Your task to perform on an android device: open chrome and create a bookmark for the current page Image 0: 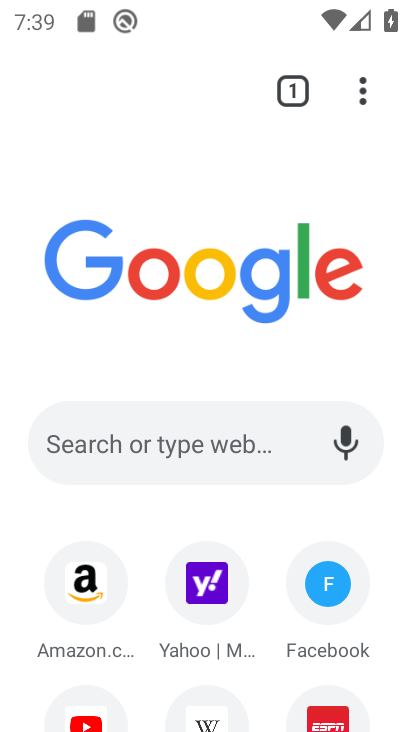
Step 0: press home button
Your task to perform on an android device: open chrome and create a bookmark for the current page Image 1: 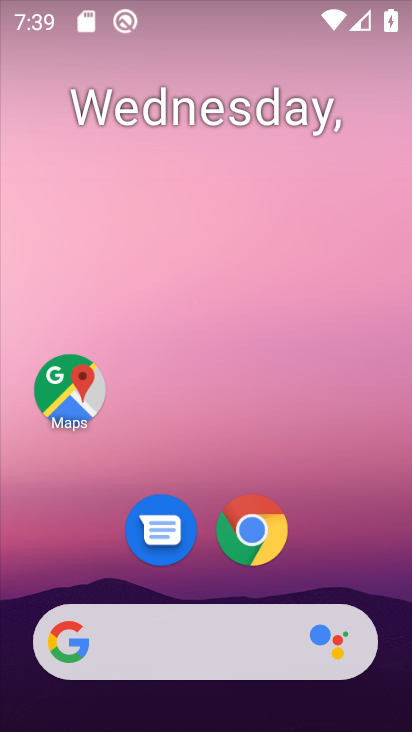
Step 1: drag from (382, 661) to (325, 74)
Your task to perform on an android device: open chrome and create a bookmark for the current page Image 2: 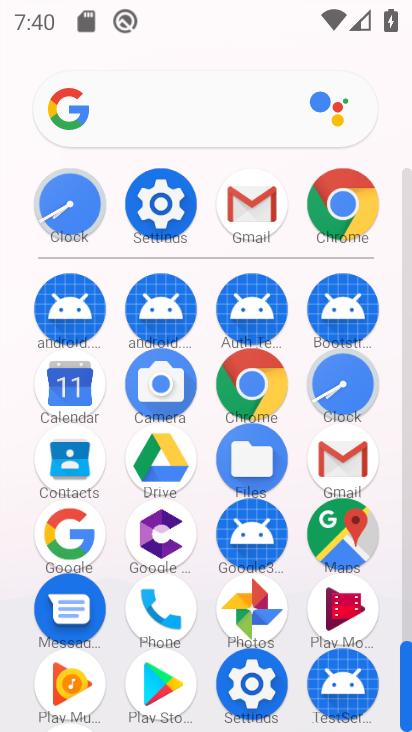
Step 2: click (253, 387)
Your task to perform on an android device: open chrome and create a bookmark for the current page Image 3: 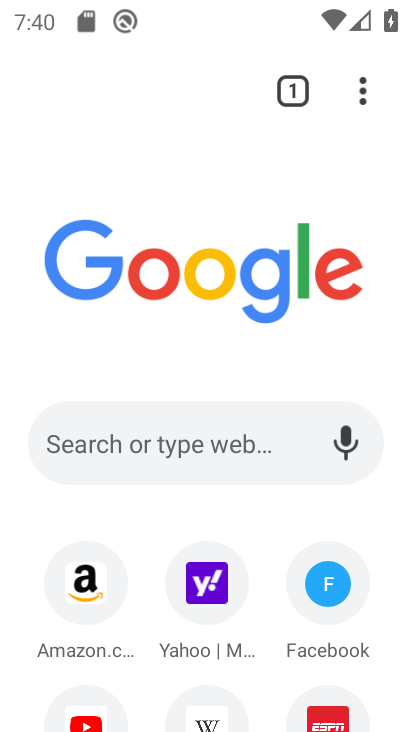
Step 3: click (358, 81)
Your task to perform on an android device: open chrome and create a bookmark for the current page Image 4: 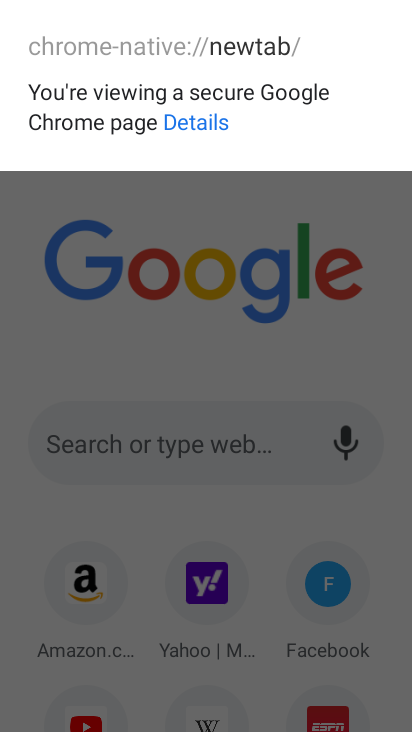
Step 4: click (273, 310)
Your task to perform on an android device: open chrome and create a bookmark for the current page Image 5: 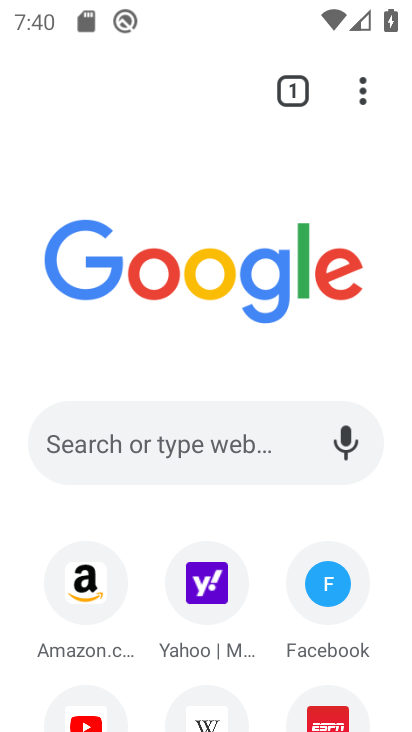
Step 5: click (360, 91)
Your task to perform on an android device: open chrome and create a bookmark for the current page Image 6: 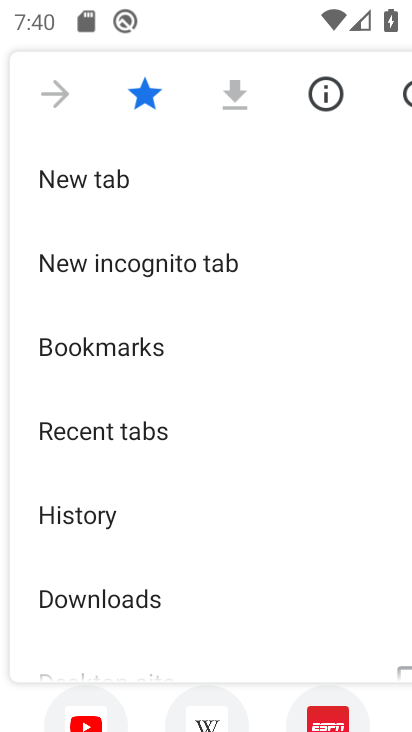
Step 6: task complete